Your task to perform on an android device: turn on improve location accuracy Image 0: 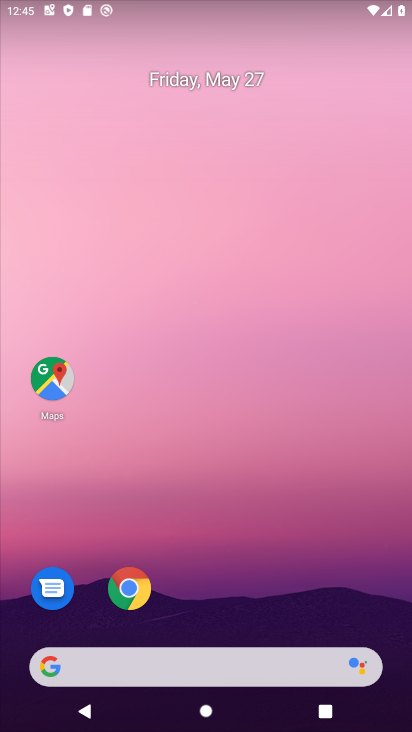
Step 0: drag from (205, 603) to (163, 7)
Your task to perform on an android device: turn on improve location accuracy Image 1: 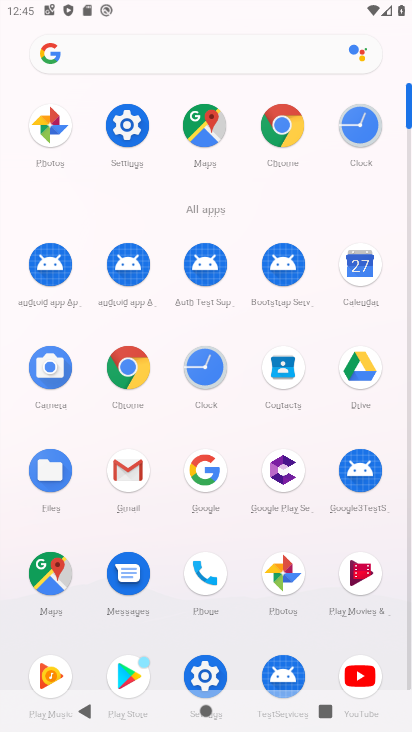
Step 1: click (123, 113)
Your task to perform on an android device: turn on improve location accuracy Image 2: 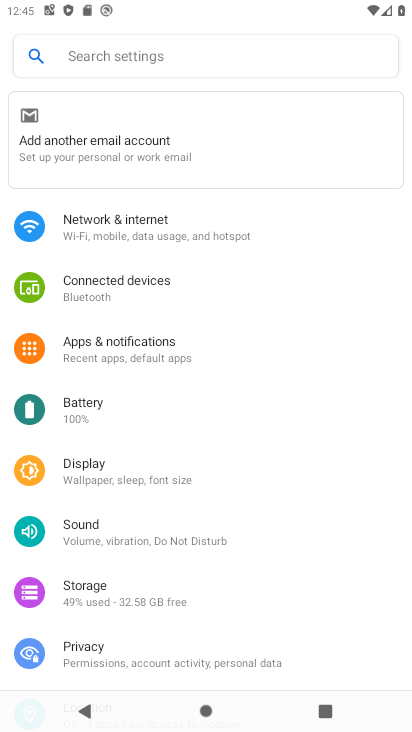
Step 2: drag from (185, 482) to (151, 135)
Your task to perform on an android device: turn on improve location accuracy Image 3: 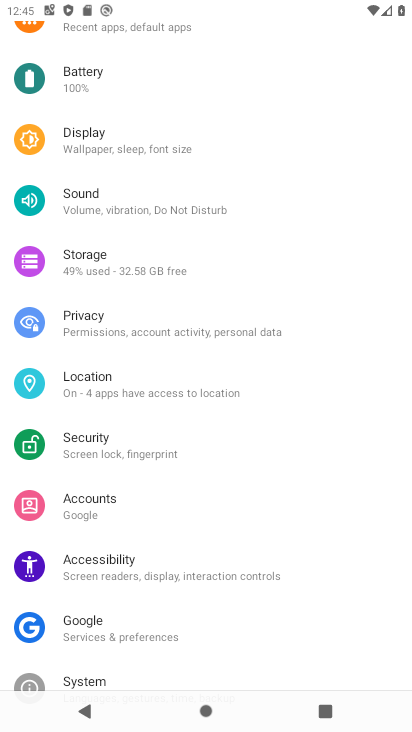
Step 3: click (112, 371)
Your task to perform on an android device: turn on improve location accuracy Image 4: 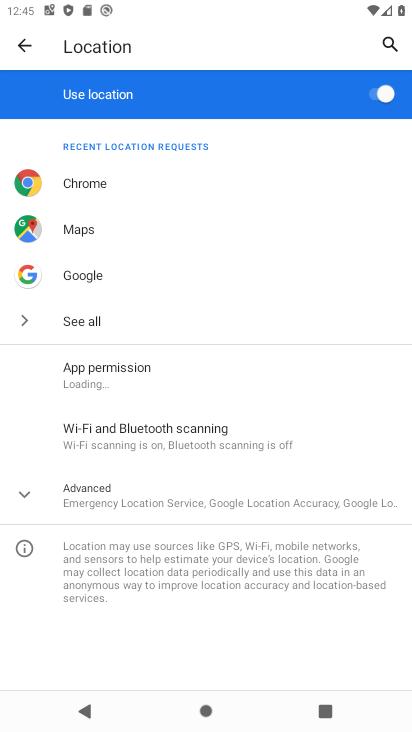
Step 4: click (147, 497)
Your task to perform on an android device: turn on improve location accuracy Image 5: 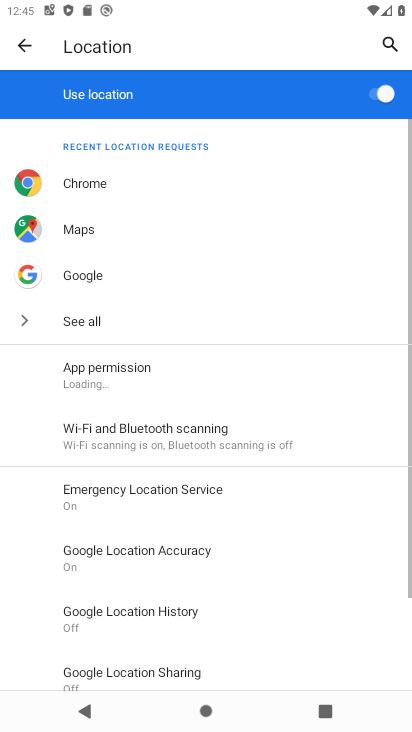
Step 5: drag from (147, 497) to (107, 283)
Your task to perform on an android device: turn on improve location accuracy Image 6: 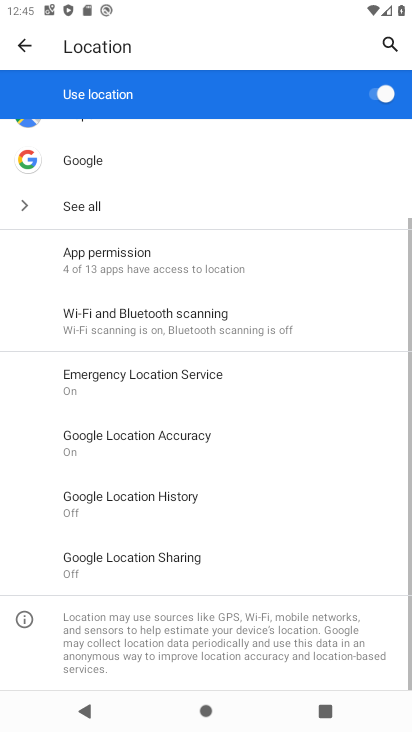
Step 6: click (97, 424)
Your task to perform on an android device: turn on improve location accuracy Image 7: 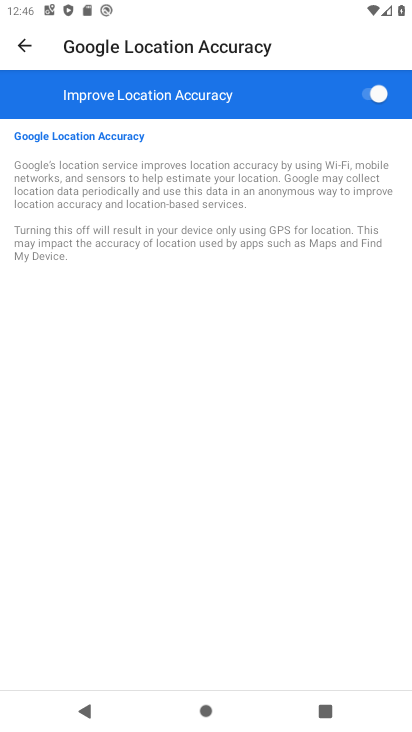
Step 7: task complete